Your task to perform on an android device: turn off location Image 0: 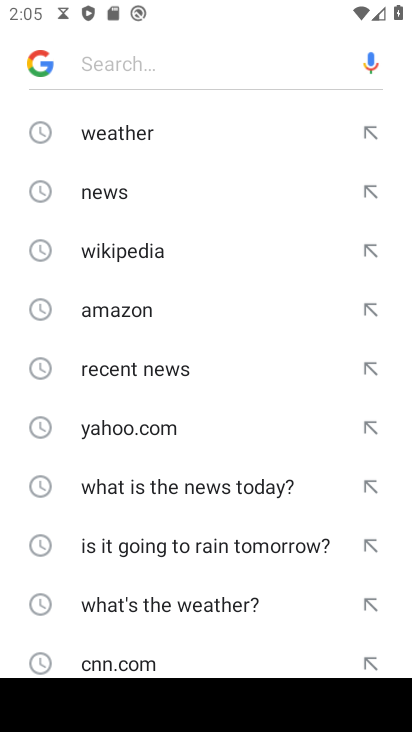
Step 0: press back button
Your task to perform on an android device: turn off location Image 1: 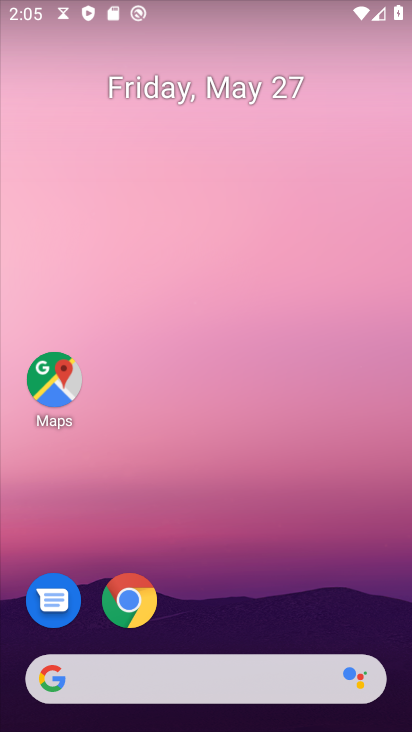
Step 1: drag from (257, 506) to (239, 5)
Your task to perform on an android device: turn off location Image 2: 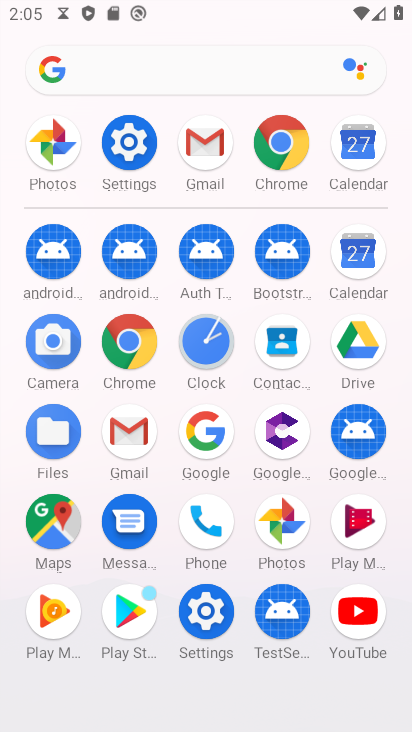
Step 2: click (204, 605)
Your task to perform on an android device: turn off location Image 3: 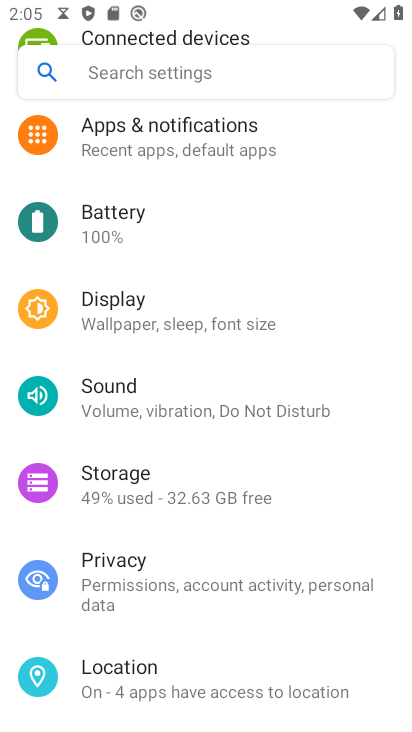
Step 3: click (181, 667)
Your task to perform on an android device: turn off location Image 4: 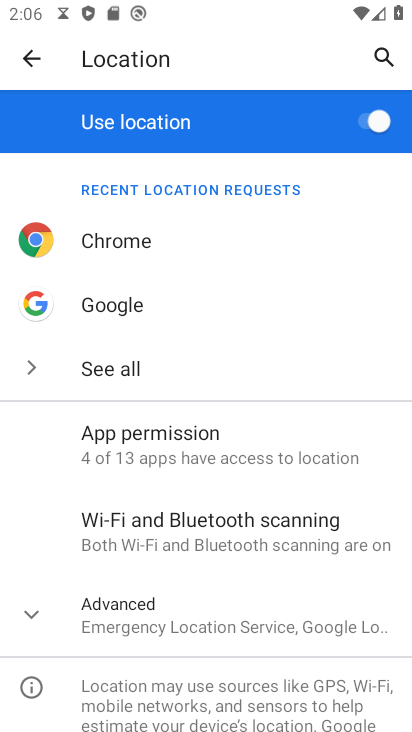
Step 4: click (372, 119)
Your task to perform on an android device: turn off location Image 5: 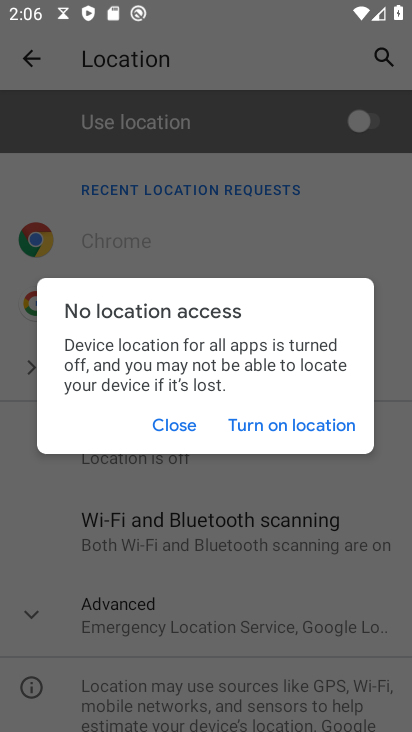
Step 5: click (169, 421)
Your task to perform on an android device: turn off location Image 6: 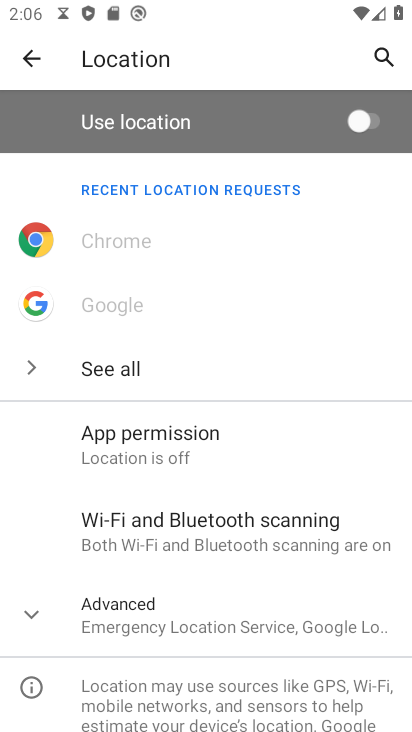
Step 6: task complete